Your task to perform on an android device: Go to sound settings Image 0: 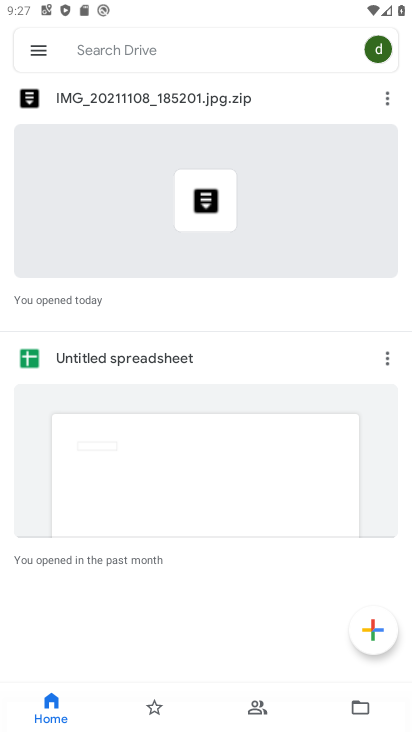
Step 0: press home button
Your task to perform on an android device: Go to sound settings Image 1: 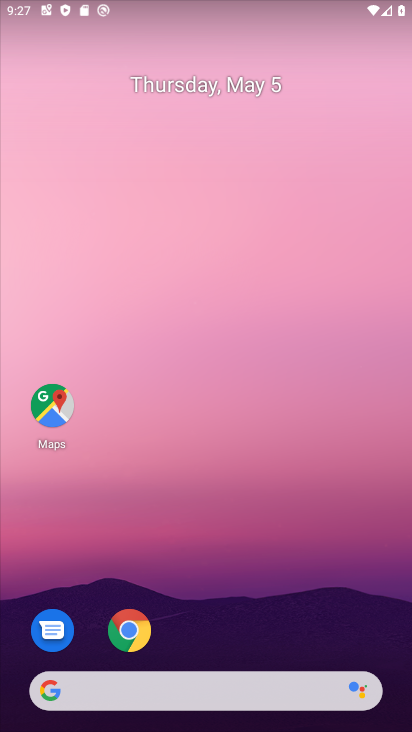
Step 1: drag from (200, 632) to (278, 136)
Your task to perform on an android device: Go to sound settings Image 2: 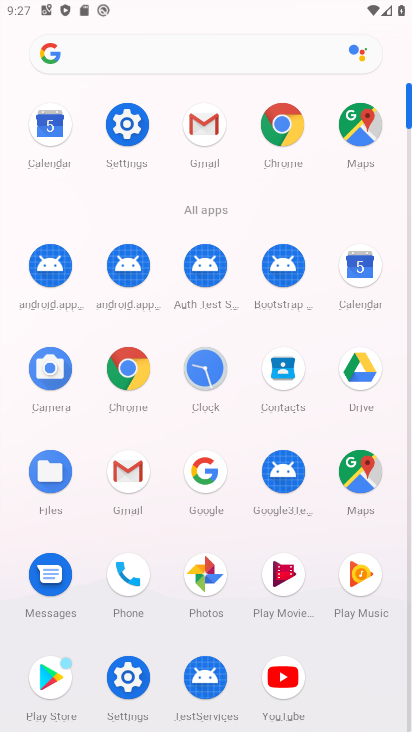
Step 2: click (113, 136)
Your task to perform on an android device: Go to sound settings Image 3: 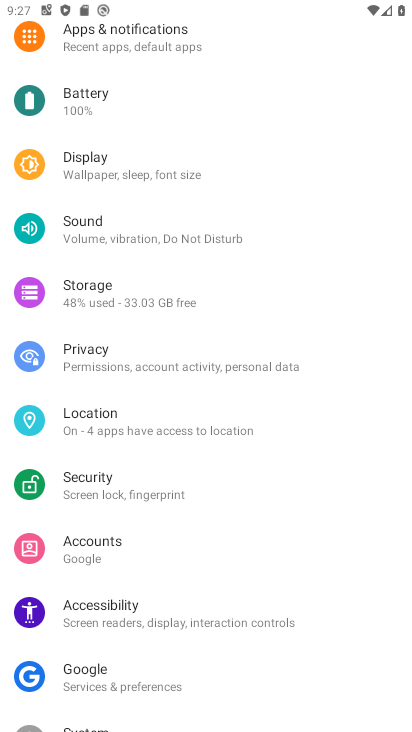
Step 3: click (113, 217)
Your task to perform on an android device: Go to sound settings Image 4: 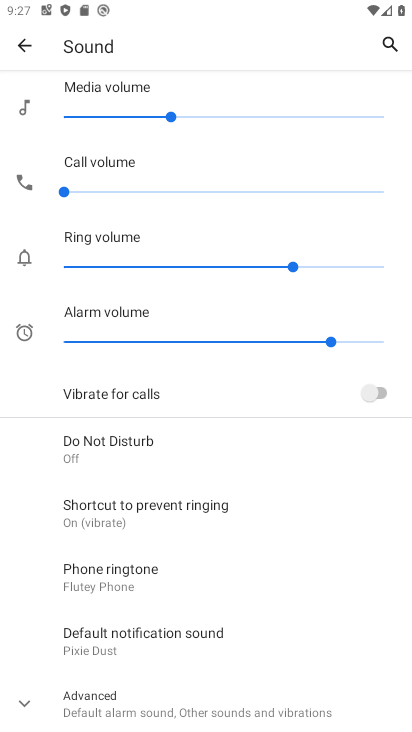
Step 4: task complete